Your task to perform on an android device: empty trash in the gmail app Image 0: 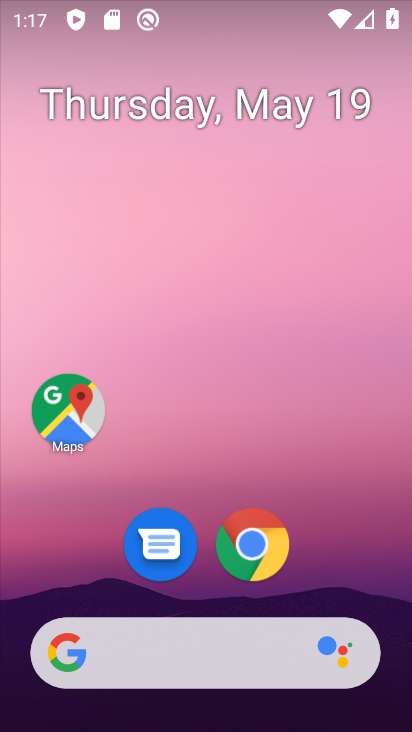
Step 0: drag from (275, 665) to (298, 438)
Your task to perform on an android device: empty trash in the gmail app Image 1: 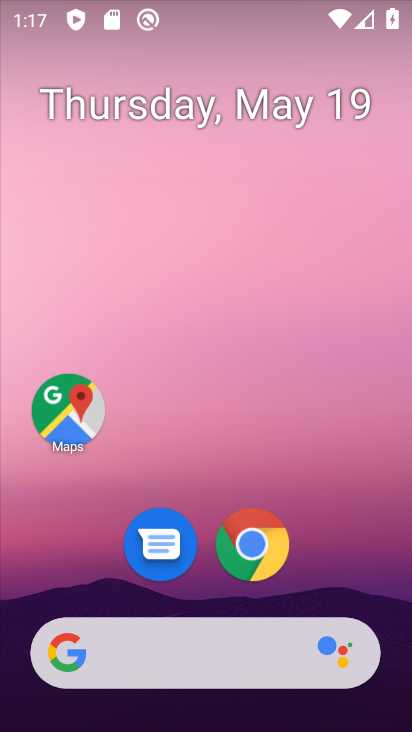
Step 1: drag from (162, 693) to (198, 173)
Your task to perform on an android device: empty trash in the gmail app Image 2: 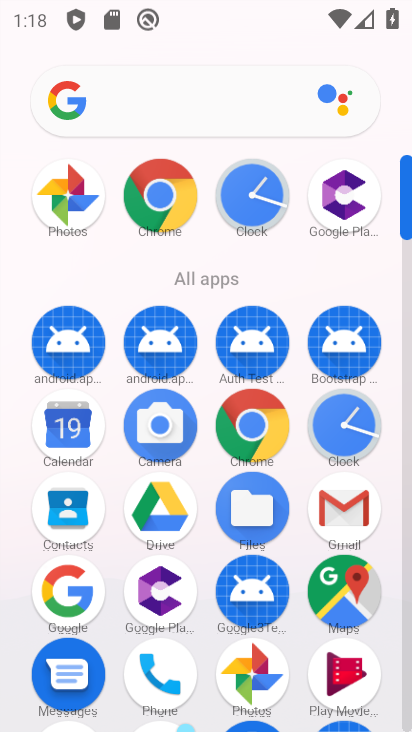
Step 2: click (339, 487)
Your task to perform on an android device: empty trash in the gmail app Image 3: 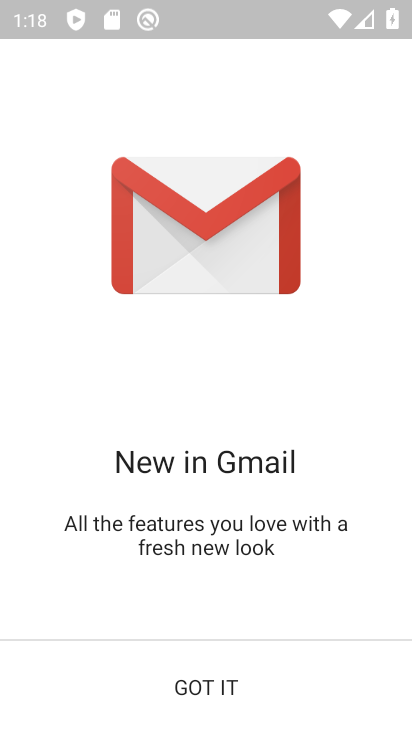
Step 3: click (194, 689)
Your task to perform on an android device: empty trash in the gmail app Image 4: 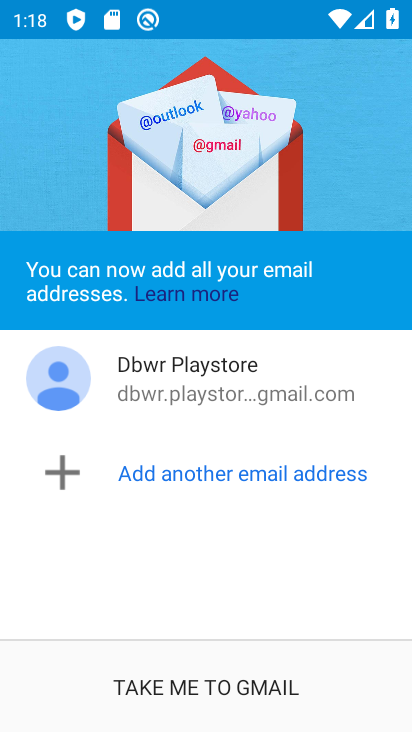
Step 4: click (194, 689)
Your task to perform on an android device: empty trash in the gmail app Image 5: 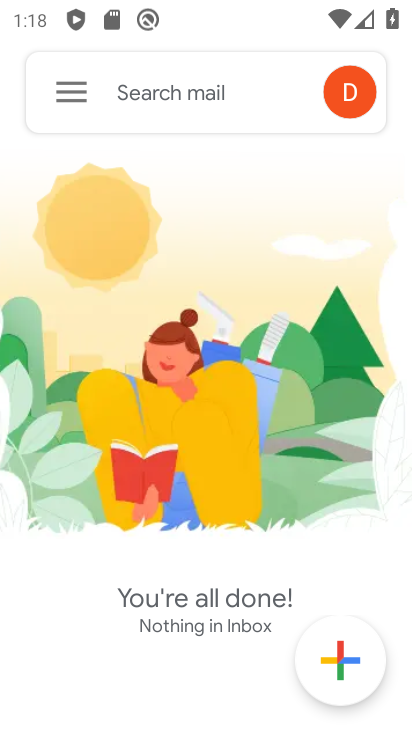
Step 5: click (61, 86)
Your task to perform on an android device: empty trash in the gmail app Image 6: 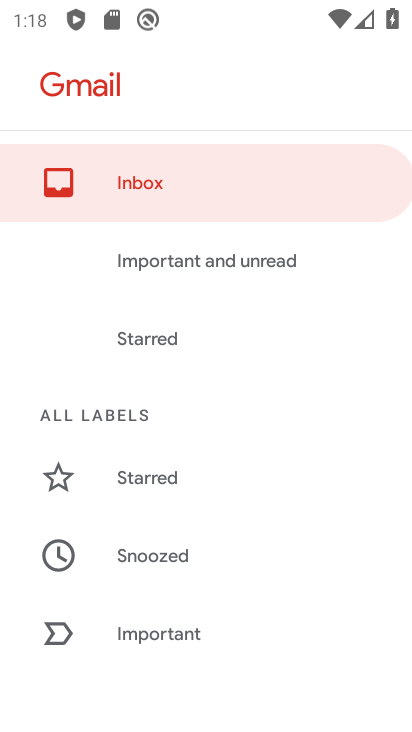
Step 6: drag from (189, 573) to (266, 195)
Your task to perform on an android device: empty trash in the gmail app Image 7: 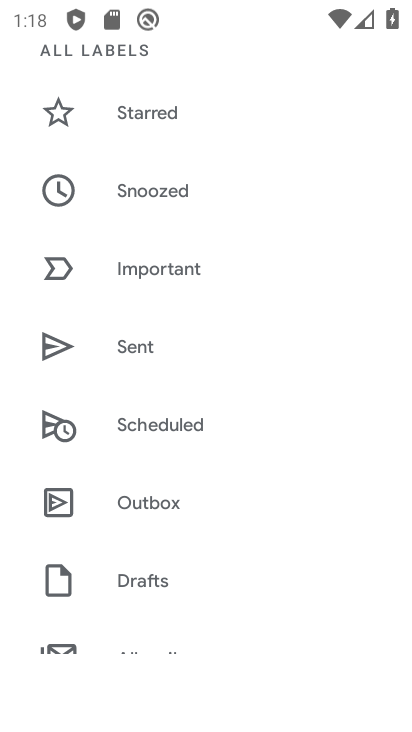
Step 7: drag from (149, 518) to (196, 271)
Your task to perform on an android device: empty trash in the gmail app Image 8: 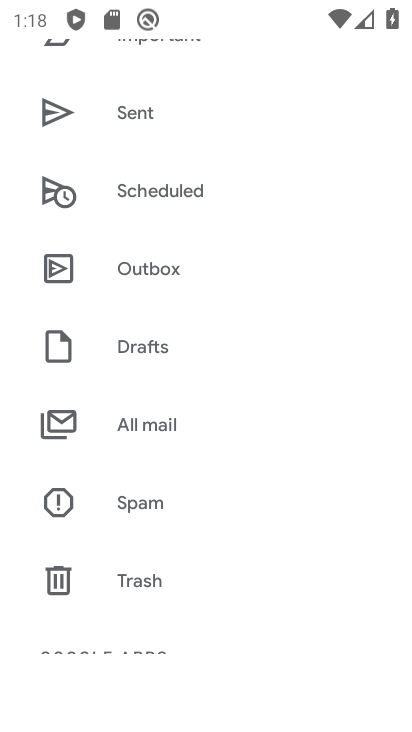
Step 8: click (132, 574)
Your task to perform on an android device: empty trash in the gmail app Image 9: 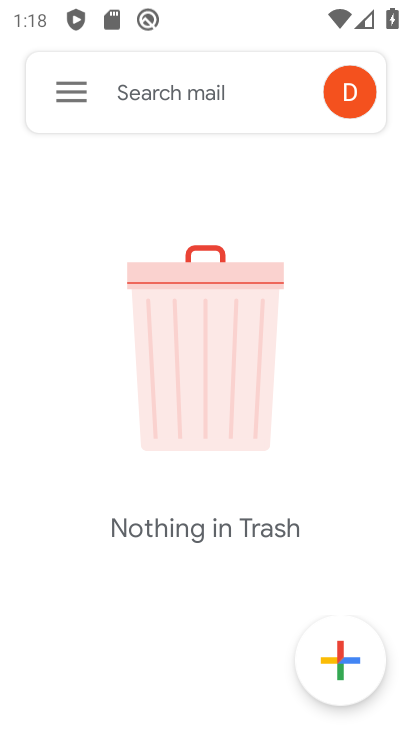
Step 9: task complete